Your task to perform on an android device: Search for pizza restaurants on Maps Image 0: 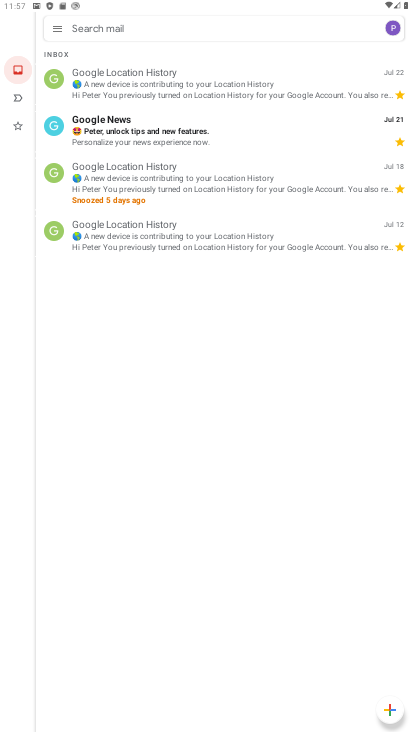
Step 0: press home button
Your task to perform on an android device: Search for pizza restaurants on Maps Image 1: 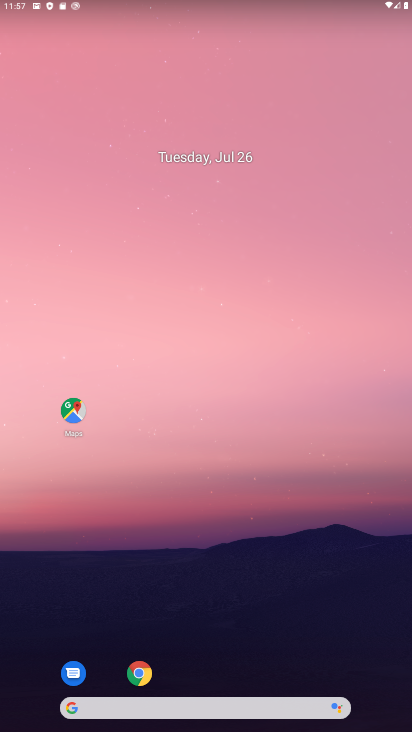
Step 1: drag from (171, 641) to (202, 200)
Your task to perform on an android device: Search for pizza restaurants on Maps Image 2: 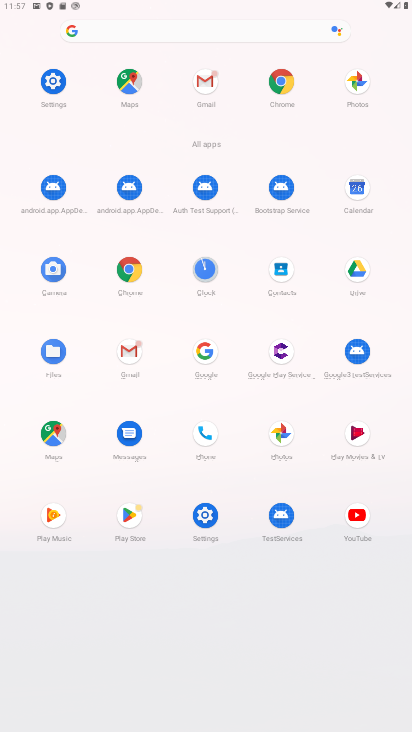
Step 2: click (57, 438)
Your task to perform on an android device: Search for pizza restaurants on Maps Image 3: 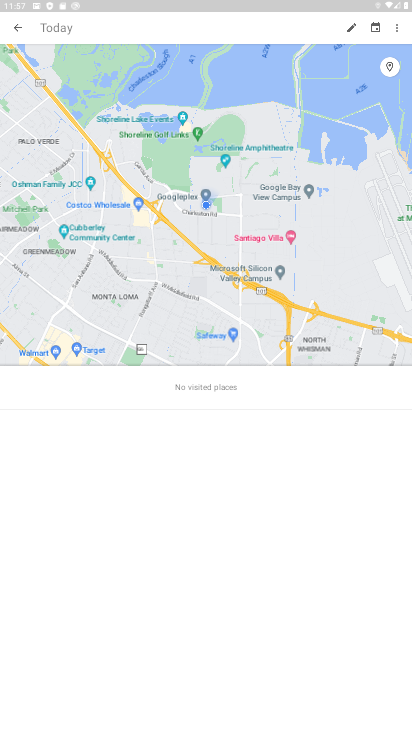
Step 3: click (15, 32)
Your task to perform on an android device: Search for pizza restaurants on Maps Image 4: 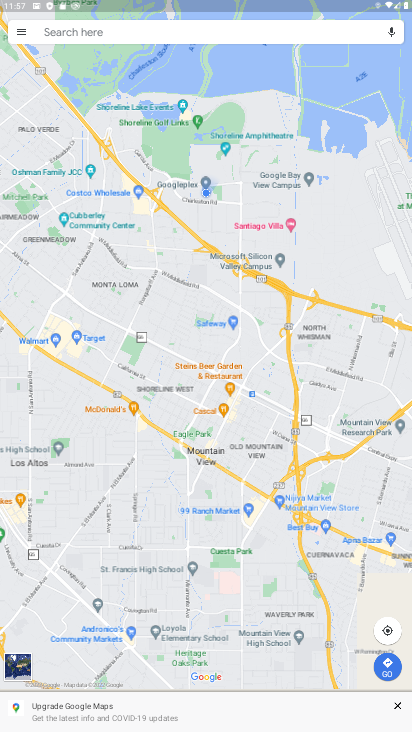
Step 4: click (170, 25)
Your task to perform on an android device: Search for pizza restaurants on Maps Image 5: 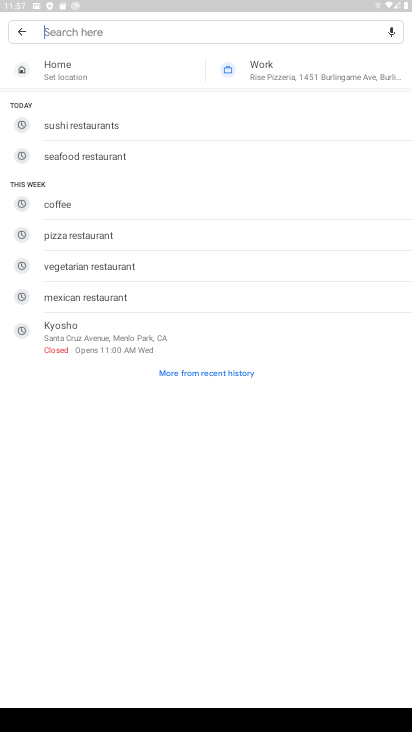
Step 5: click (98, 229)
Your task to perform on an android device: Search for pizza restaurants on Maps Image 6: 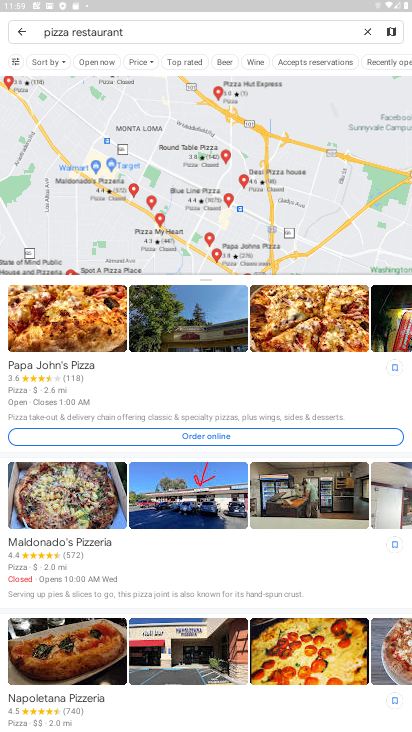
Step 6: task complete